Your task to perform on an android device: change the upload size in google photos Image 0: 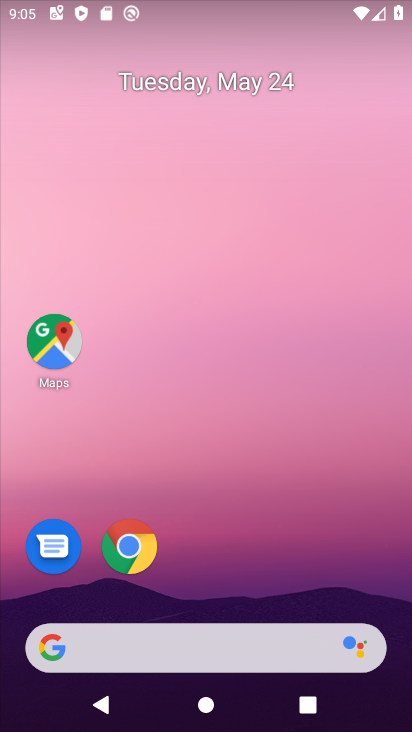
Step 0: drag from (182, 536) to (212, 285)
Your task to perform on an android device: change the upload size in google photos Image 1: 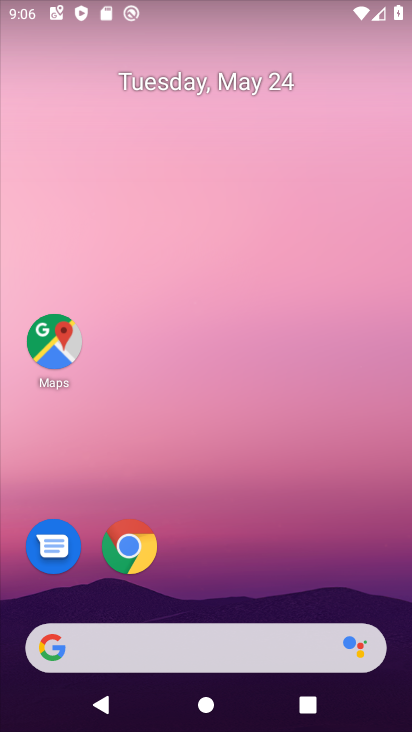
Step 1: drag from (281, 616) to (274, 148)
Your task to perform on an android device: change the upload size in google photos Image 2: 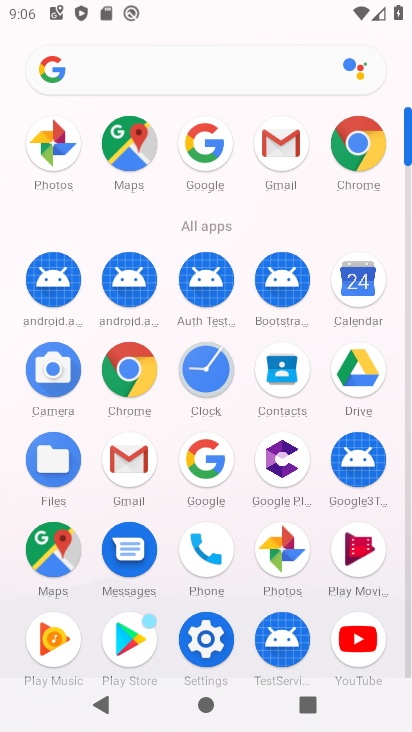
Step 2: click (287, 543)
Your task to perform on an android device: change the upload size in google photos Image 3: 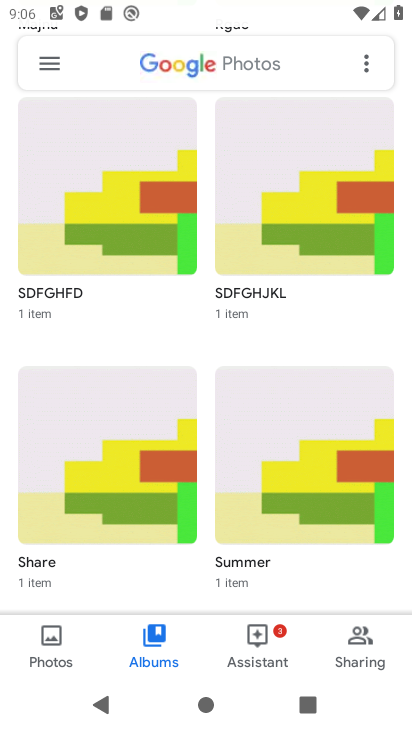
Step 3: click (53, 61)
Your task to perform on an android device: change the upload size in google photos Image 4: 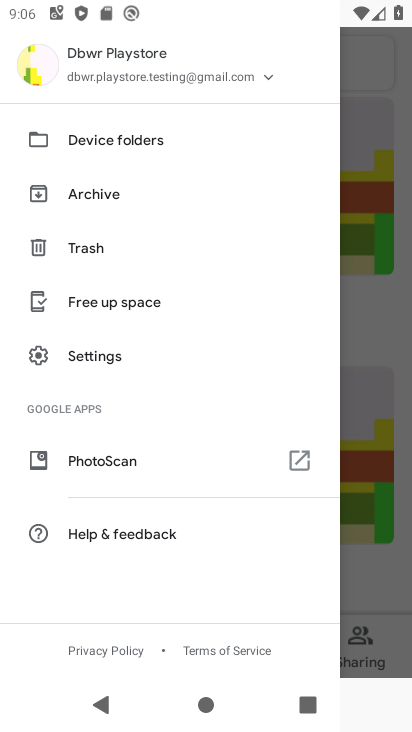
Step 4: click (106, 355)
Your task to perform on an android device: change the upload size in google photos Image 5: 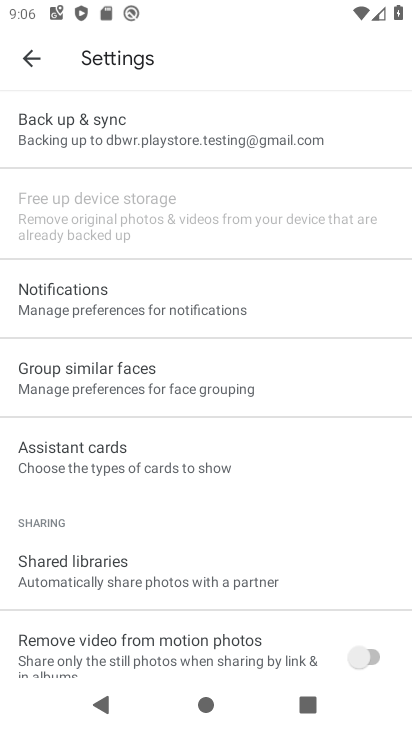
Step 5: click (112, 133)
Your task to perform on an android device: change the upload size in google photos Image 6: 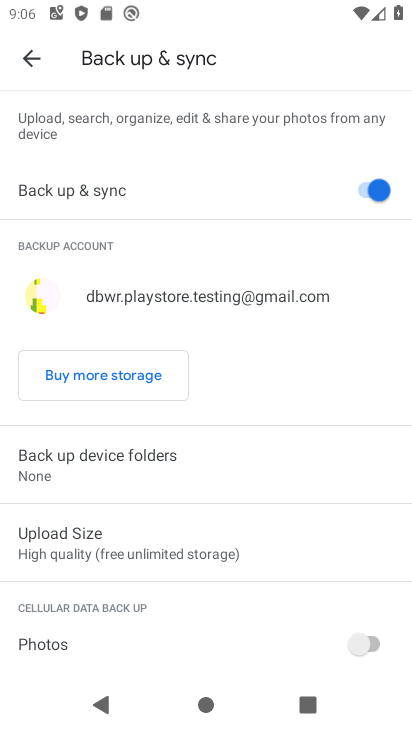
Step 6: click (83, 543)
Your task to perform on an android device: change the upload size in google photos Image 7: 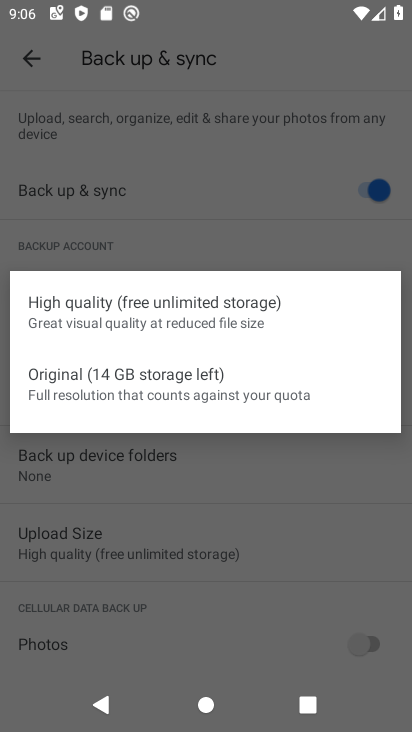
Step 7: click (75, 381)
Your task to perform on an android device: change the upload size in google photos Image 8: 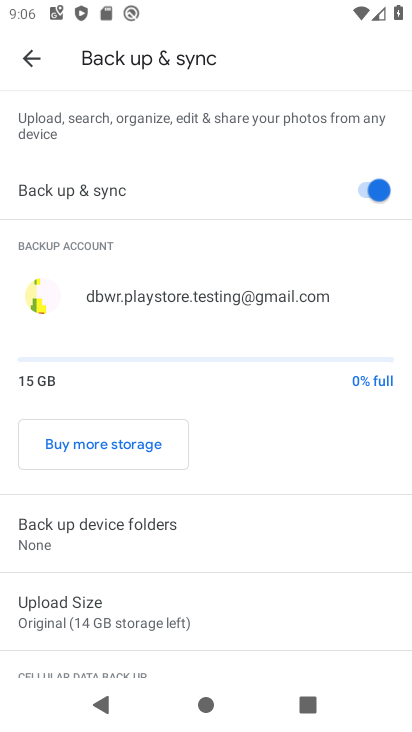
Step 8: task complete